Your task to perform on an android device: Open Reddit.com Image 0: 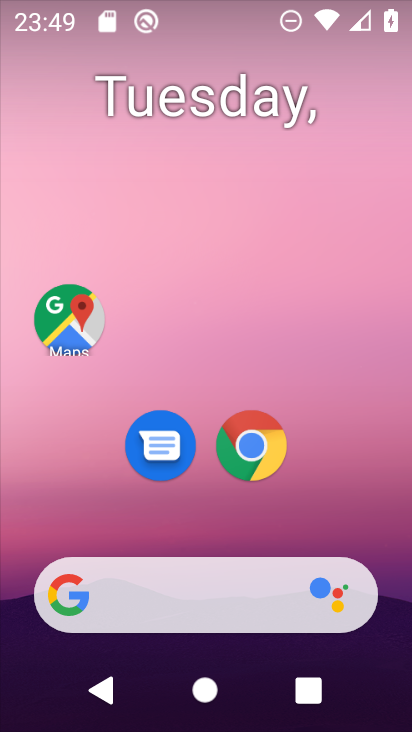
Step 0: click (248, 454)
Your task to perform on an android device: Open Reddit.com Image 1: 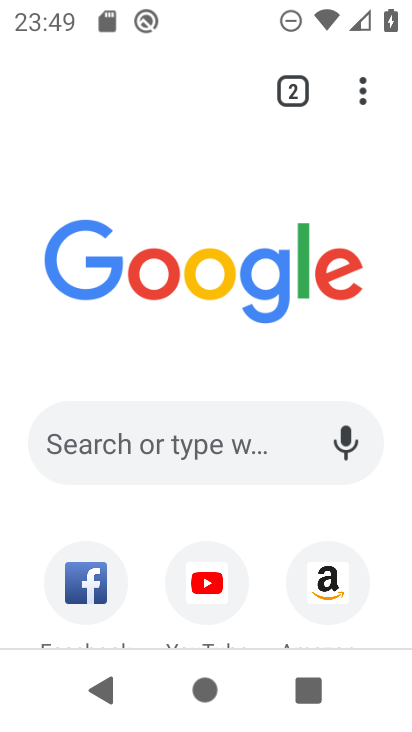
Step 1: click (129, 446)
Your task to perform on an android device: Open Reddit.com Image 2: 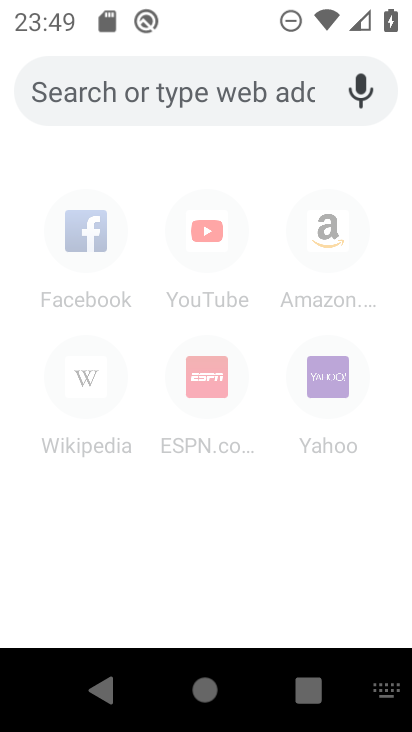
Step 2: type "Reddit.com"
Your task to perform on an android device: Open Reddit.com Image 3: 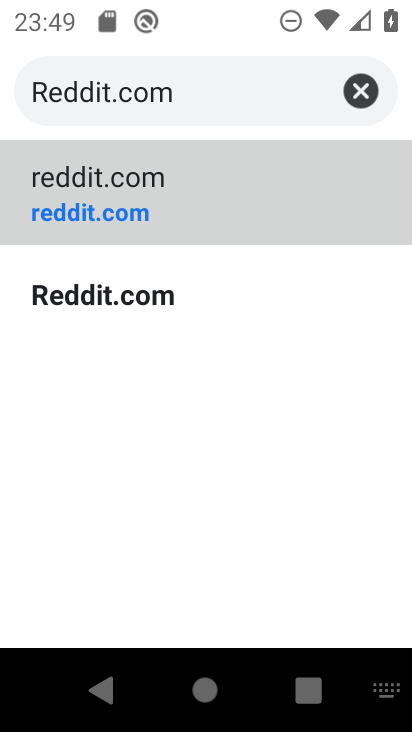
Step 3: click (86, 198)
Your task to perform on an android device: Open Reddit.com Image 4: 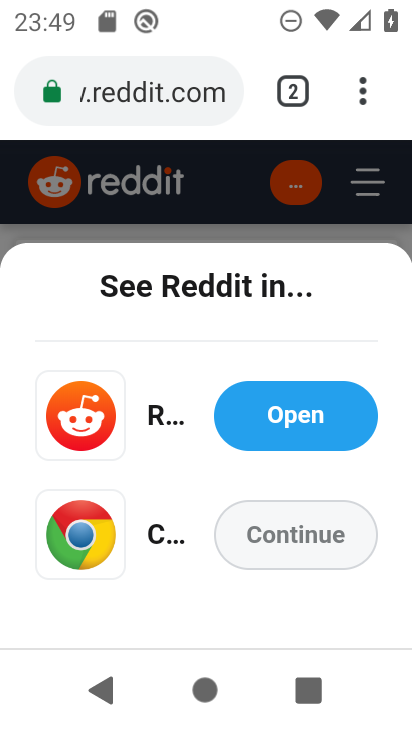
Step 4: task complete